Your task to perform on an android device: Show me productivity apps on the Play Store Image 0: 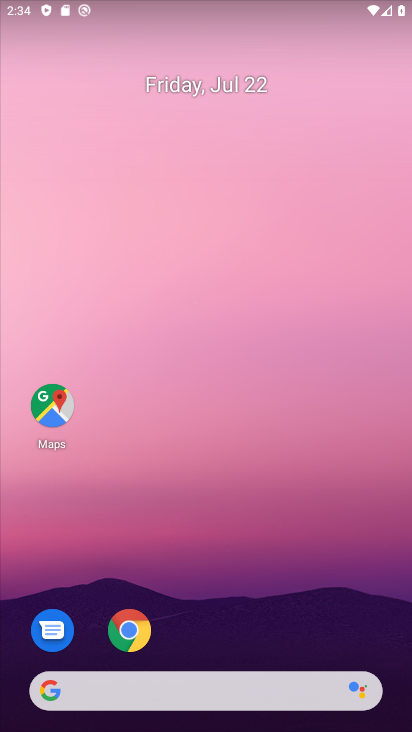
Step 0: press home button
Your task to perform on an android device: Show me productivity apps on the Play Store Image 1: 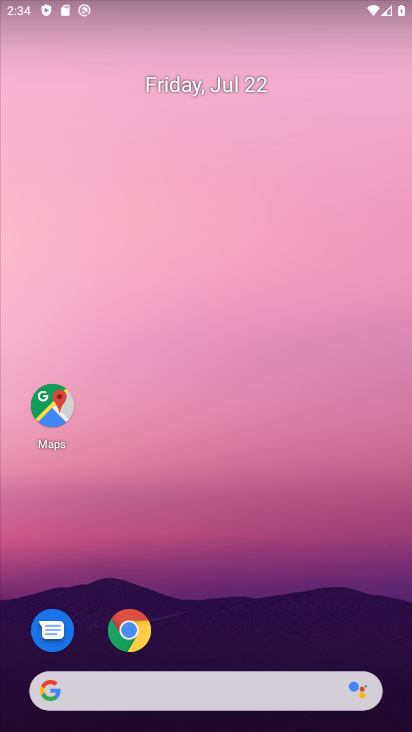
Step 1: drag from (208, 702) to (240, 11)
Your task to perform on an android device: Show me productivity apps on the Play Store Image 2: 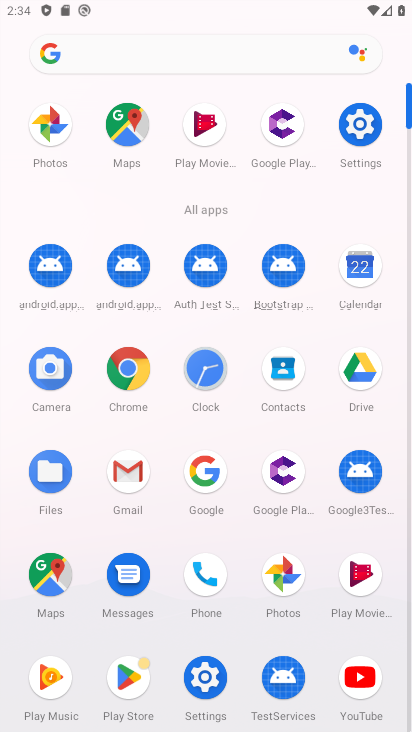
Step 2: click (124, 664)
Your task to perform on an android device: Show me productivity apps on the Play Store Image 3: 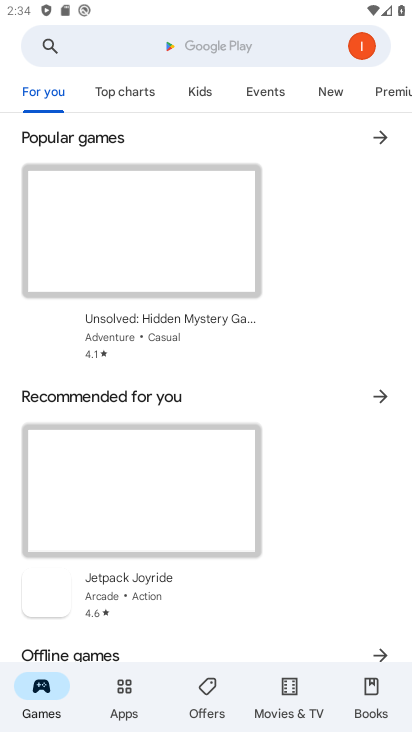
Step 3: click (258, 36)
Your task to perform on an android device: Show me productivity apps on the Play Store Image 4: 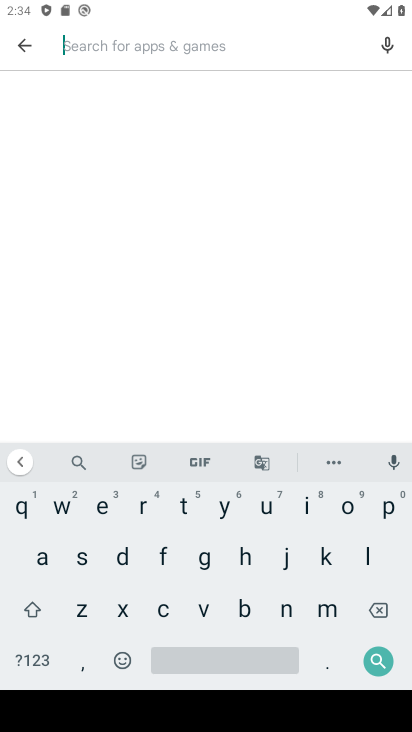
Step 4: click (383, 507)
Your task to perform on an android device: Show me productivity apps on the Play Store Image 5: 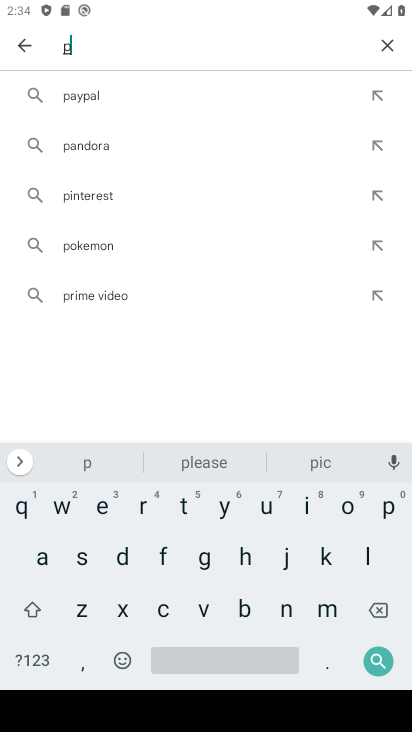
Step 5: click (140, 506)
Your task to perform on an android device: Show me productivity apps on the Play Store Image 6: 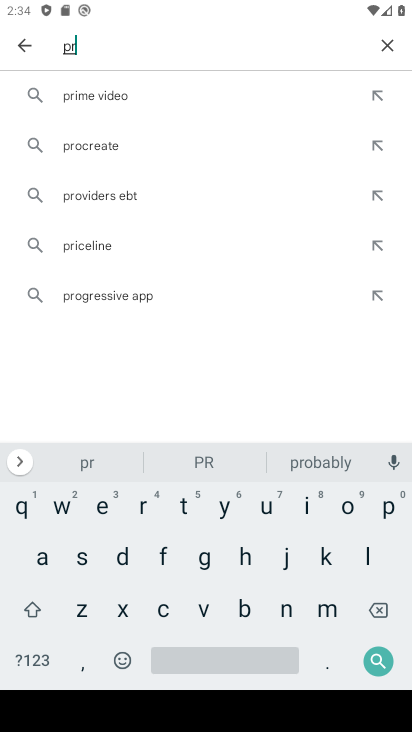
Step 6: click (347, 503)
Your task to perform on an android device: Show me productivity apps on the Play Store Image 7: 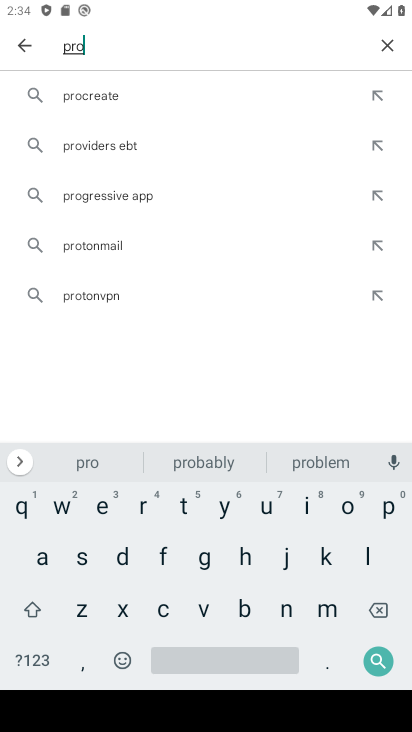
Step 7: click (120, 554)
Your task to perform on an android device: Show me productivity apps on the Play Store Image 8: 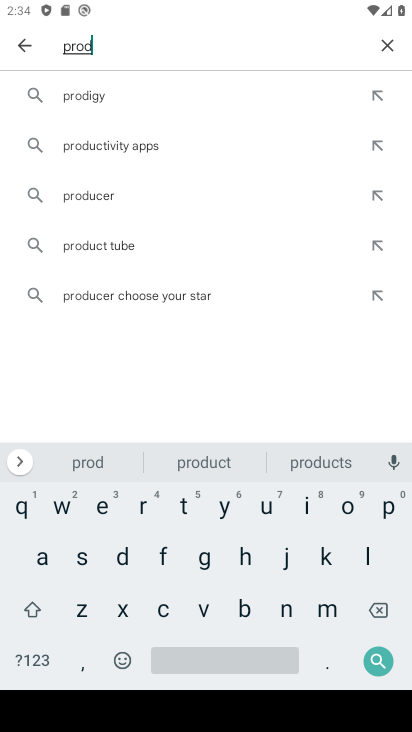
Step 8: click (129, 144)
Your task to perform on an android device: Show me productivity apps on the Play Store Image 9: 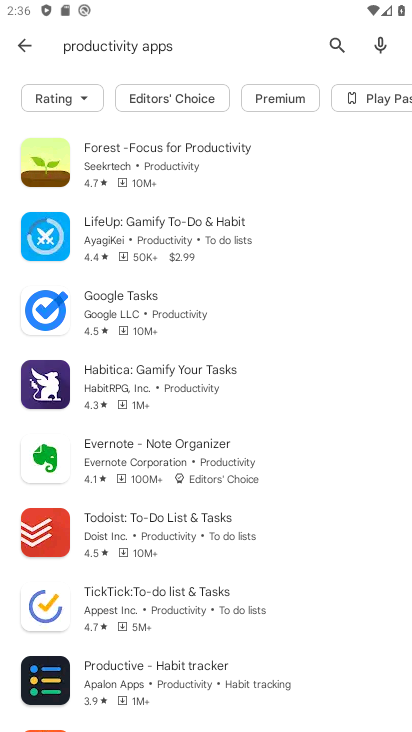
Step 9: task complete